Your task to perform on an android device: Show me productivity apps on the Play Store Image 0: 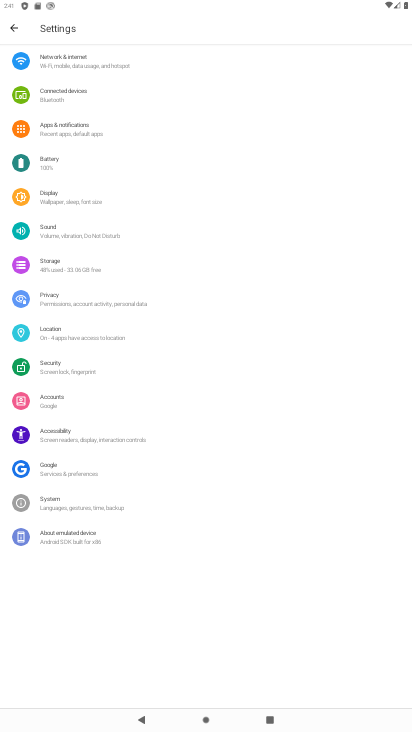
Step 0: press back button
Your task to perform on an android device: Show me productivity apps on the Play Store Image 1: 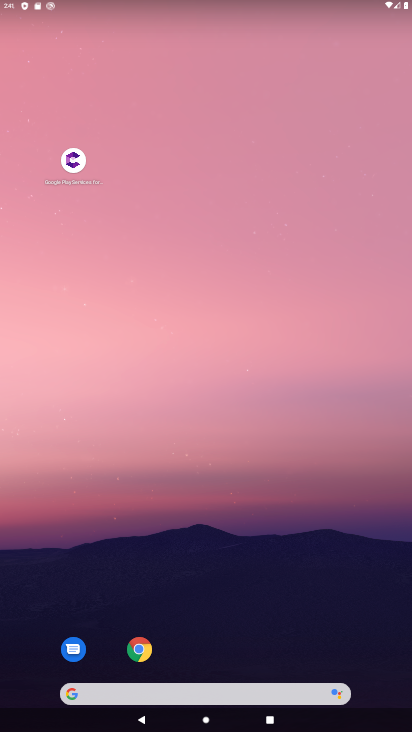
Step 1: click (207, 352)
Your task to perform on an android device: Show me productivity apps on the Play Store Image 2: 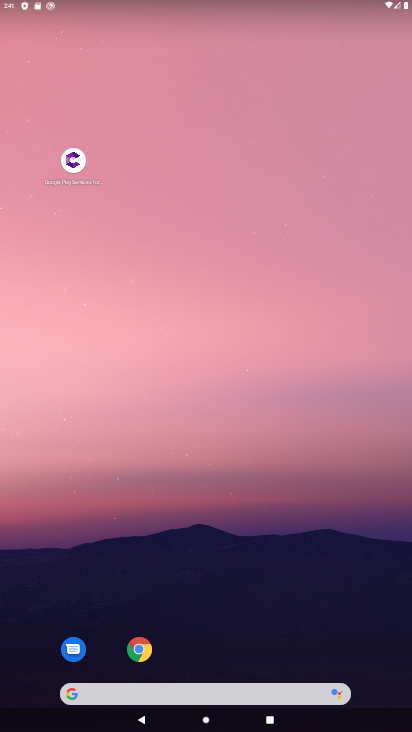
Step 2: drag from (219, 512) to (180, 0)
Your task to perform on an android device: Show me productivity apps on the Play Store Image 3: 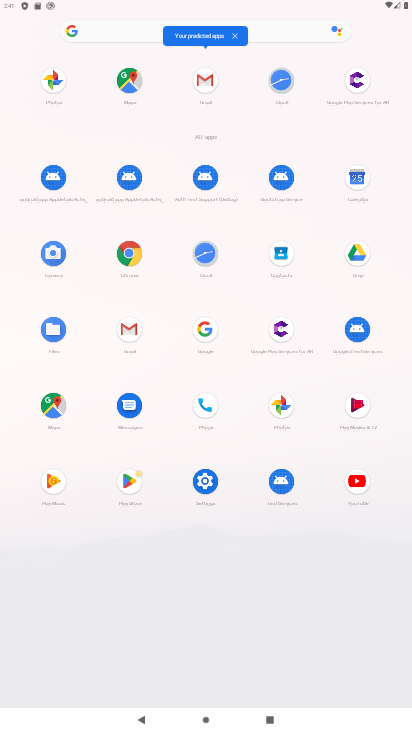
Step 3: click (118, 484)
Your task to perform on an android device: Show me productivity apps on the Play Store Image 4: 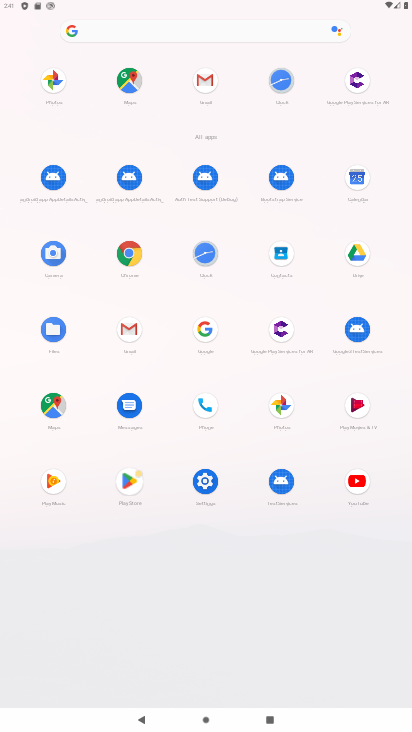
Step 4: click (133, 481)
Your task to perform on an android device: Show me productivity apps on the Play Store Image 5: 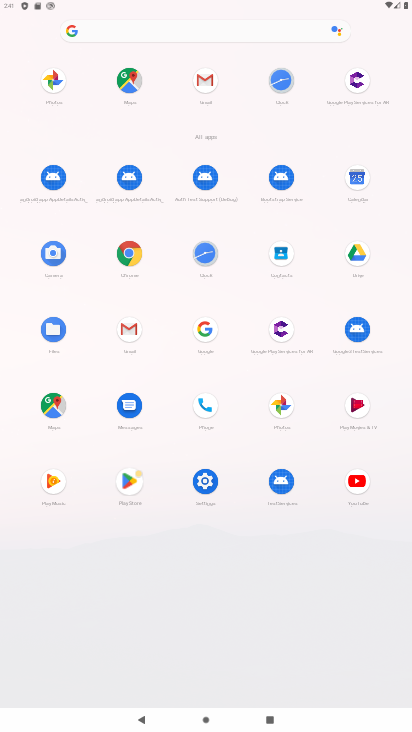
Step 5: click (133, 481)
Your task to perform on an android device: Show me productivity apps on the Play Store Image 6: 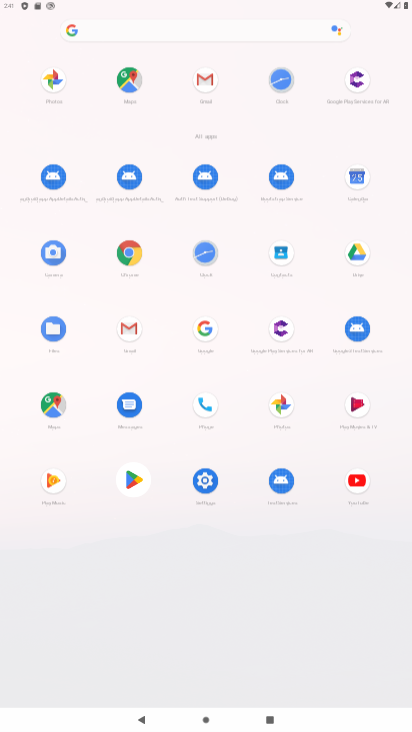
Step 6: click (133, 481)
Your task to perform on an android device: Show me productivity apps on the Play Store Image 7: 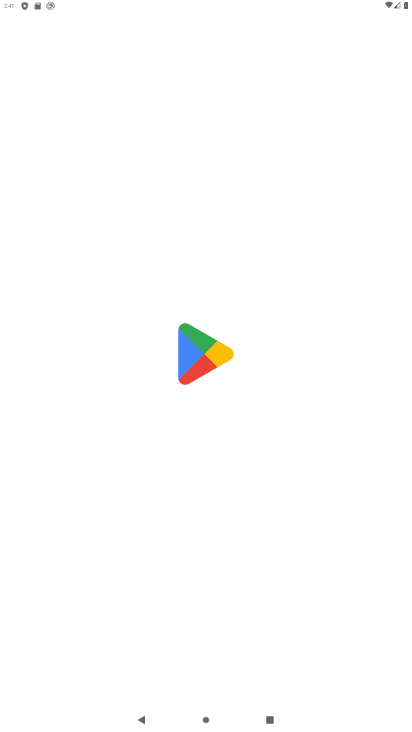
Step 7: click (133, 481)
Your task to perform on an android device: Show me productivity apps on the Play Store Image 8: 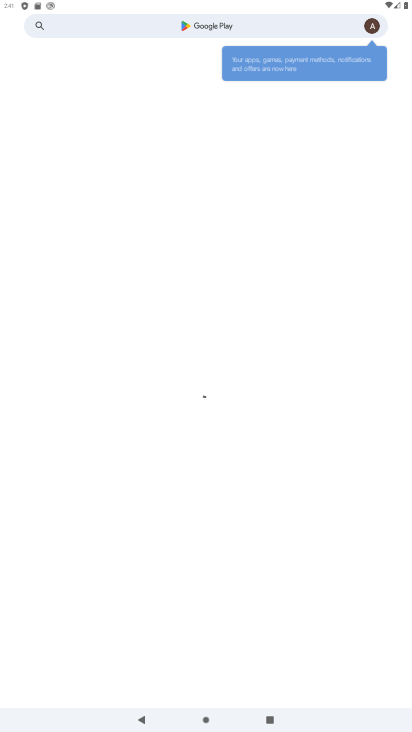
Step 8: click (250, 22)
Your task to perform on an android device: Show me productivity apps on the Play Store Image 9: 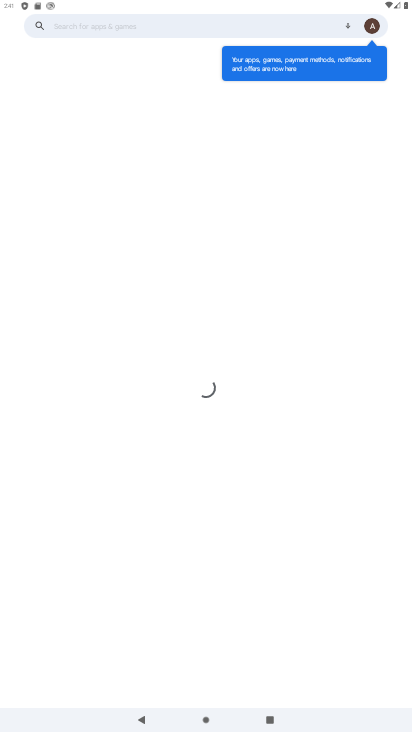
Step 9: click (248, 25)
Your task to perform on an android device: Show me productivity apps on the Play Store Image 10: 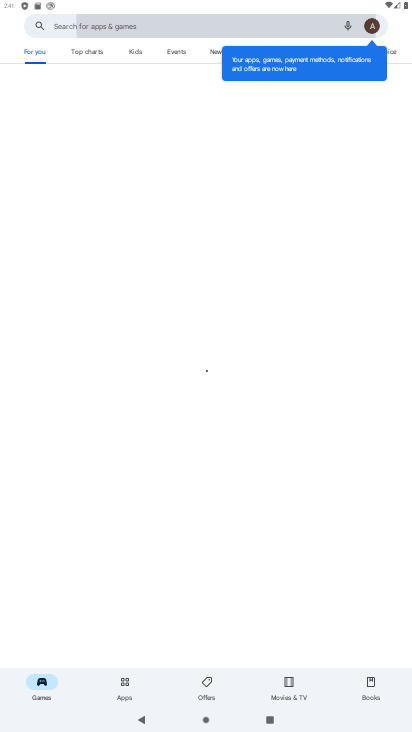
Step 10: click (255, 27)
Your task to perform on an android device: Show me productivity apps on the Play Store Image 11: 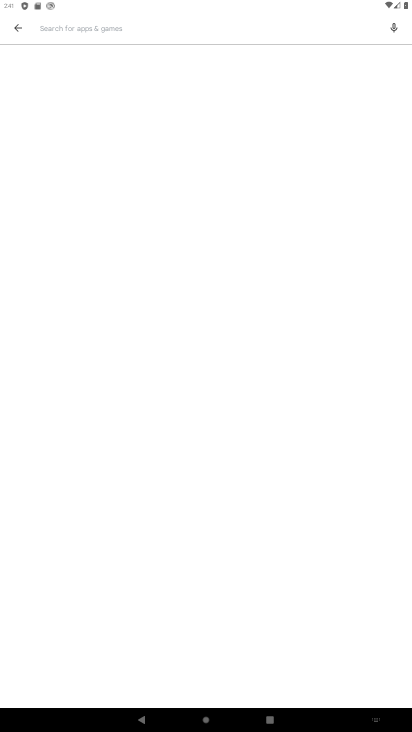
Step 11: type "productivity appds"
Your task to perform on an android device: Show me productivity apps on the Play Store Image 12: 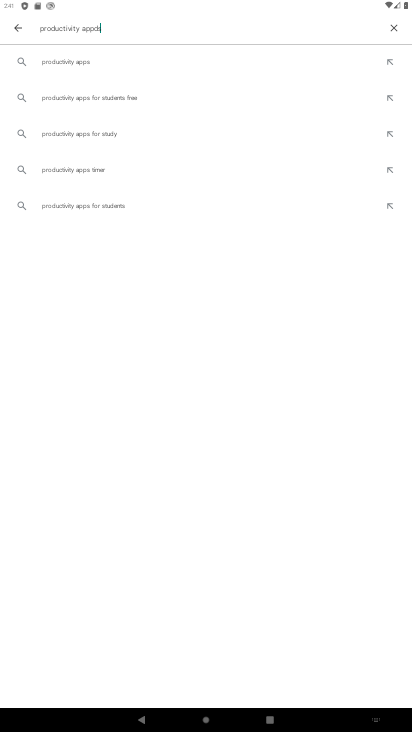
Step 12: click (56, 57)
Your task to perform on an android device: Show me productivity apps on the Play Store Image 13: 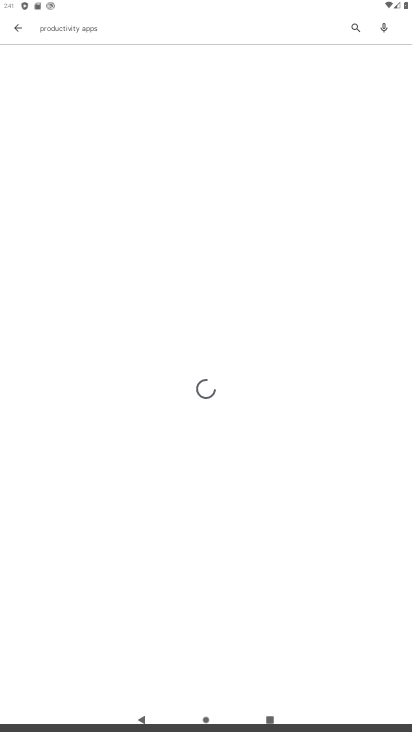
Step 13: click (85, 62)
Your task to perform on an android device: Show me productivity apps on the Play Store Image 14: 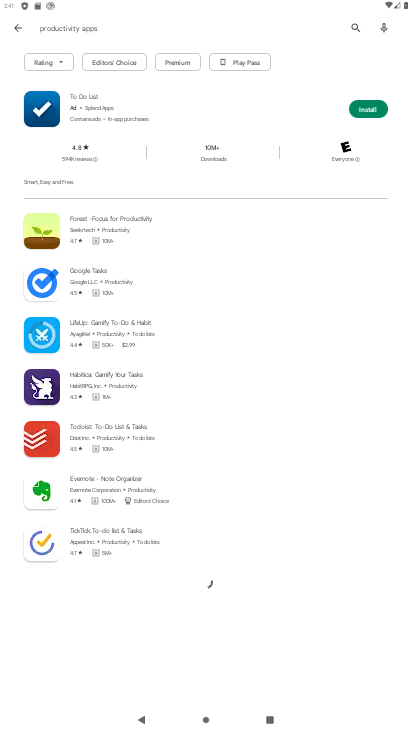
Step 14: task complete